Your task to perform on an android device: turn on bluetooth scan Image 0: 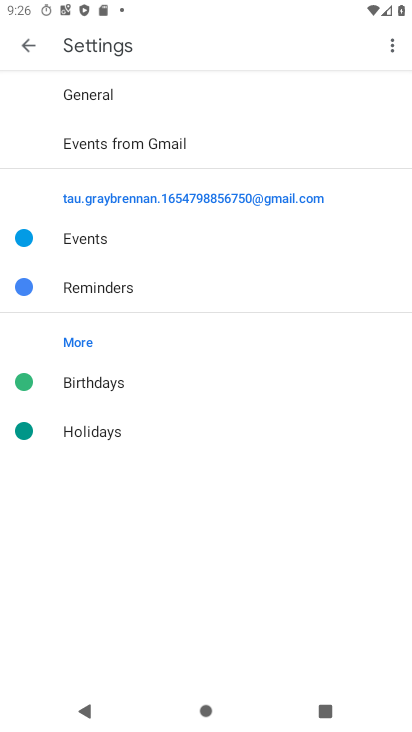
Step 0: press home button
Your task to perform on an android device: turn on bluetooth scan Image 1: 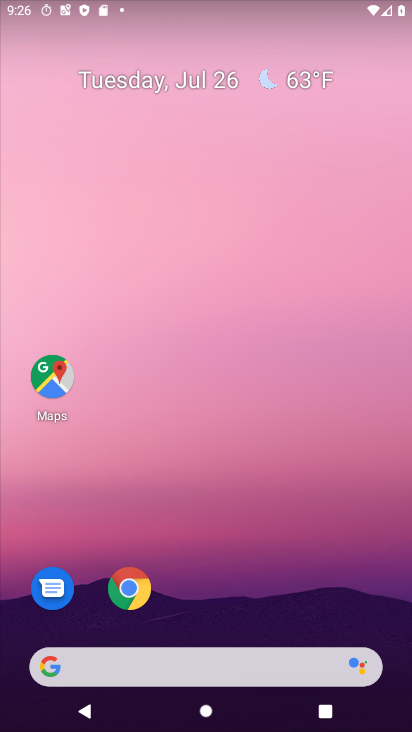
Step 1: drag from (206, 615) to (262, 107)
Your task to perform on an android device: turn on bluetooth scan Image 2: 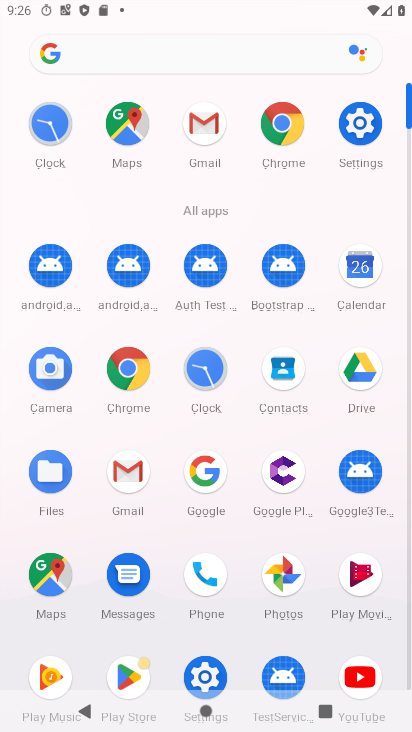
Step 2: click (343, 131)
Your task to perform on an android device: turn on bluetooth scan Image 3: 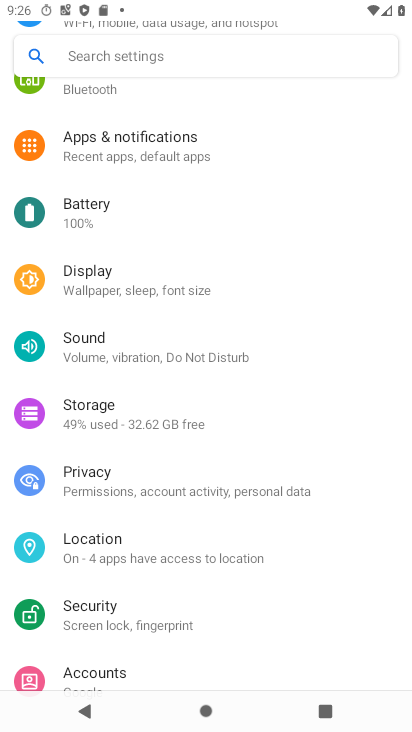
Step 3: click (83, 544)
Your task to perform on an android device: turn on bluetooth scan Image 4: 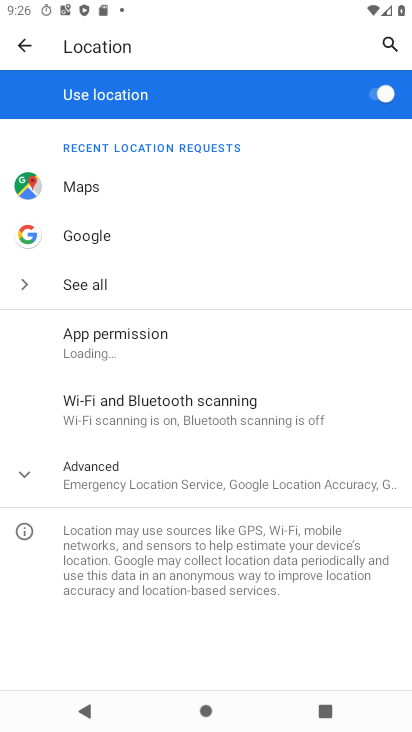
Step 4: click (150, 485)
Your task to perform on an android device: turn on bluetooth scan Image 5: 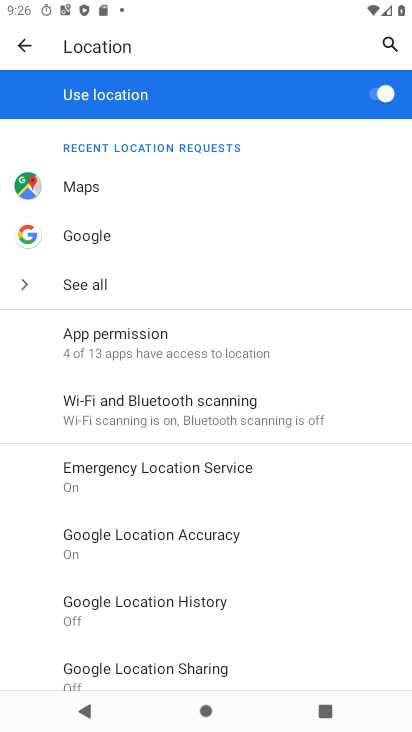
Step 5: click (191, 410)
Your task to perform on an android device: turn on bluetooth scan Image 6: 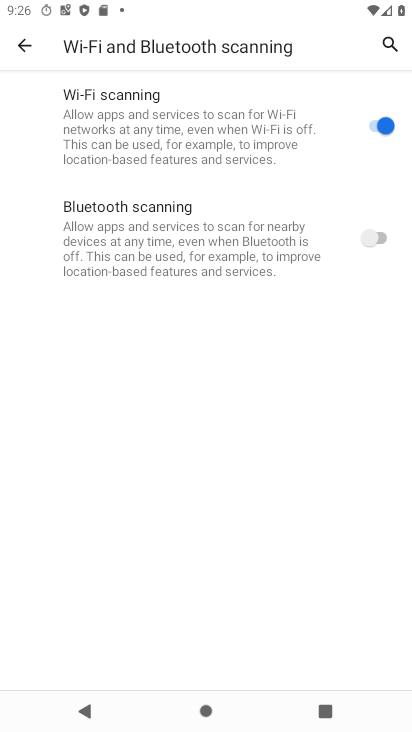
Step 6: click (382, 240)
Your task to perform on an android device: turn on bluetooth scan Image 7: 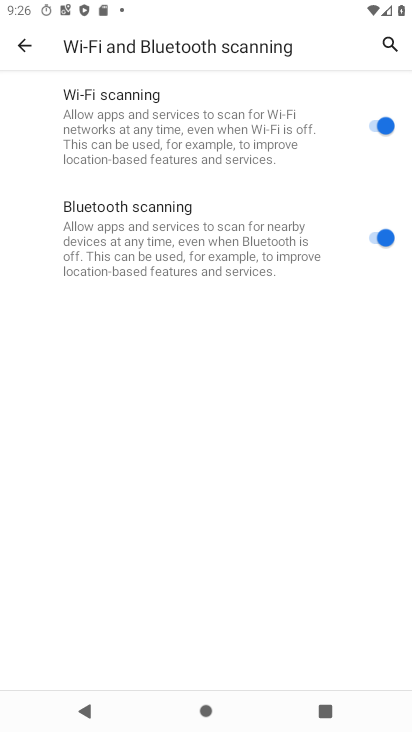
Step 7: task complete